Your task to perform on an android device: change the clock display to analog Image 0: 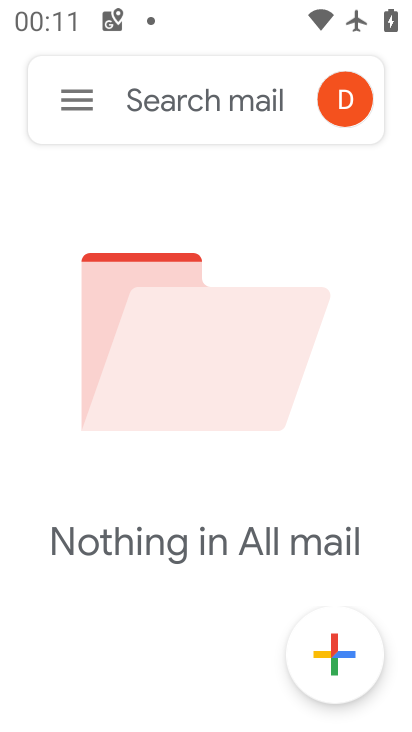
Step 0: press home button
Your task to perform on an android device: change the clock display to analog Image 1: 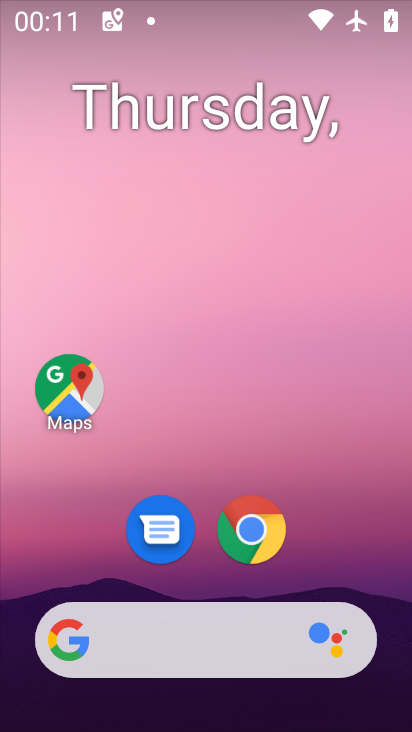
Step 1: drag from (398, 640) to (332, 163)
Your task to perform on an android device: change the clock display to analog Image 2: 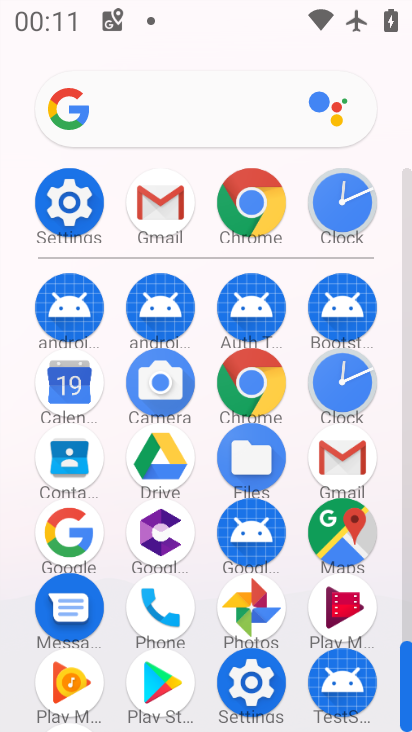
Step 2: click (343, 378)
Your task to perform on an android device: change the clock display to analog Image 3: 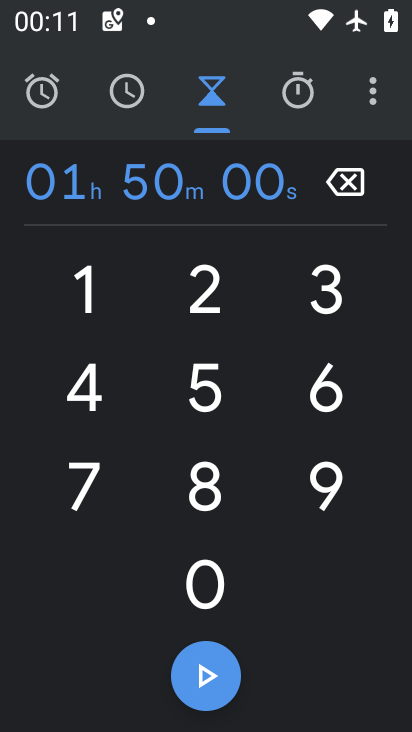
Step 3: click (372, 94)
Your task to perform on an android device: change the clock display to analog Image 4: 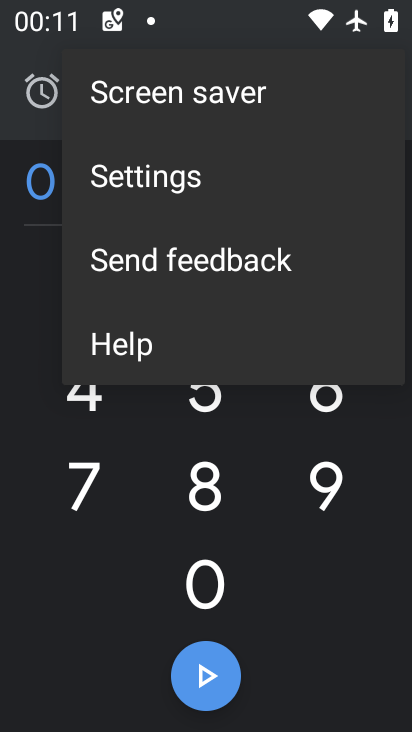
Step 4: click (162, 175)
Your task to perform on an android device: change the clock display to analog Image 5: 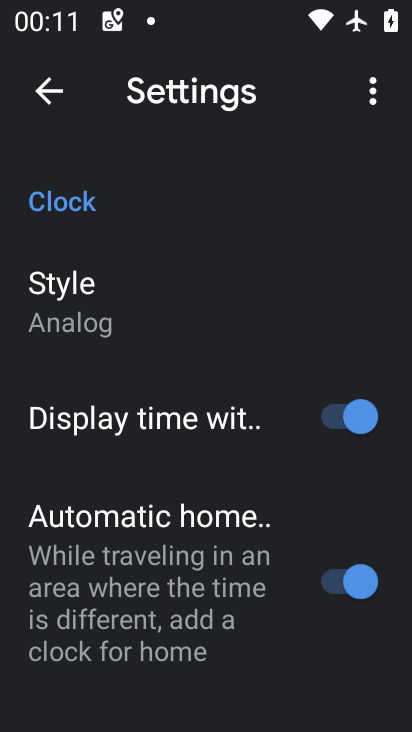
Step 5: task complete